Your task to perform on an android device: toggle notifications settings in the gmail app Image 0: 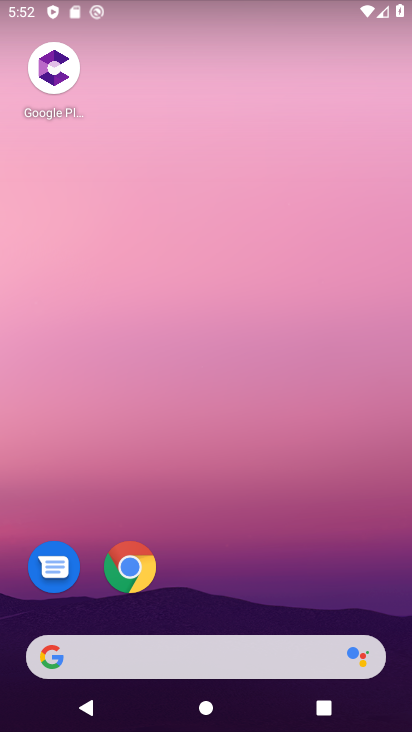
Step 0: drag from (286, 600) to (329, 145)
Your task to perform on an android device: toggle notifications settings in the gmail app Image 1: 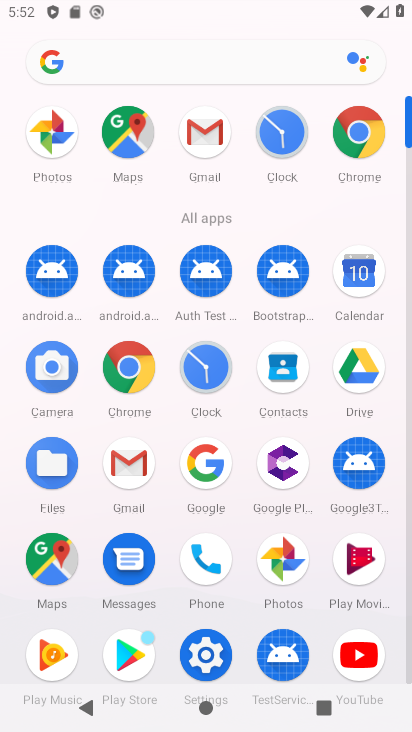
Step 1: drag from (313, 156) to (327, 48)
Your task to perform on an android device: toggle notifications settings in the gmail app Image 2: 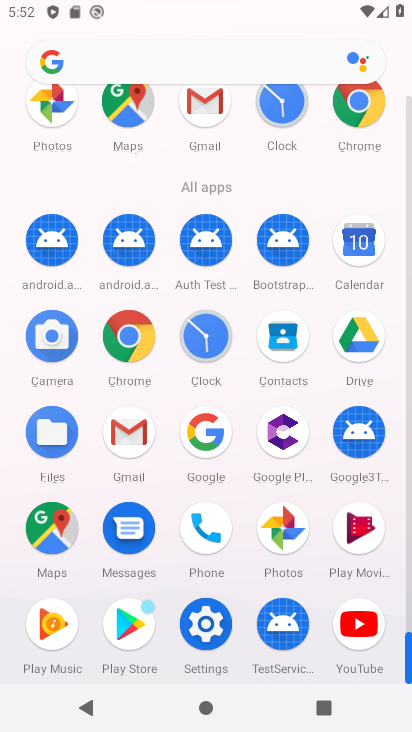
Step 2: click (201, 619)
Your task to perform on an android device: toggle notifications settings in the gmail app Image 3: 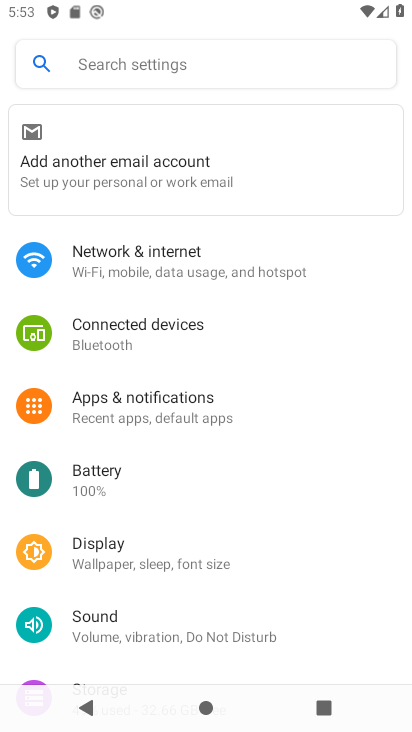
Step 3: press home button
Your task to perform on an android device: toggle notifications settings in the gmail app Image 4: 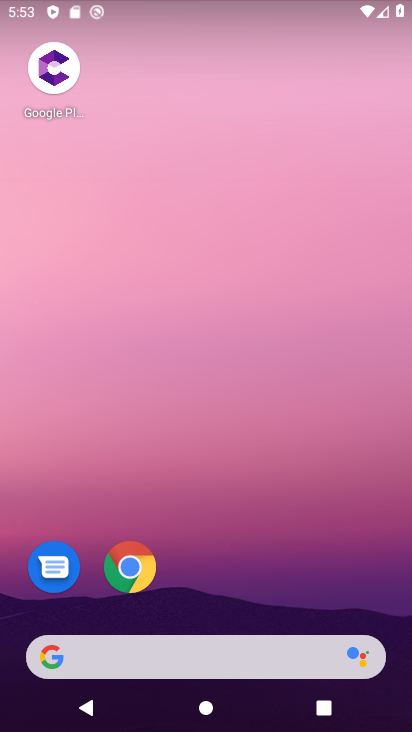
Step 4: drag from (272, 573) to (348, 101)
Your task to perform on an android device: toggle notifications settings in the gmail app Image 5: 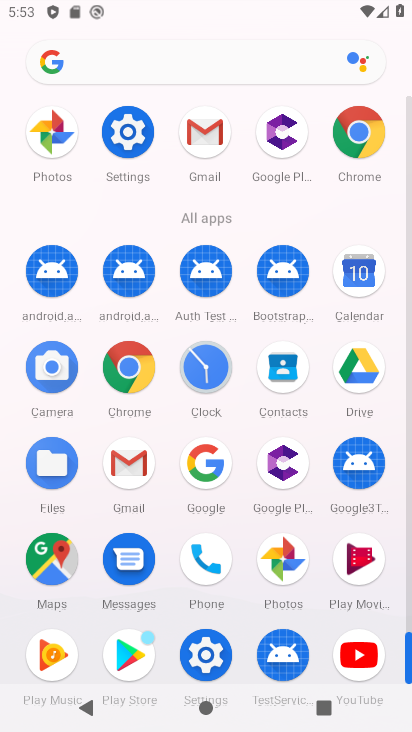
Step 5: click (211, 137)
Your task to perform on an android device: toggle notifications settings in the gmail app Image 6: 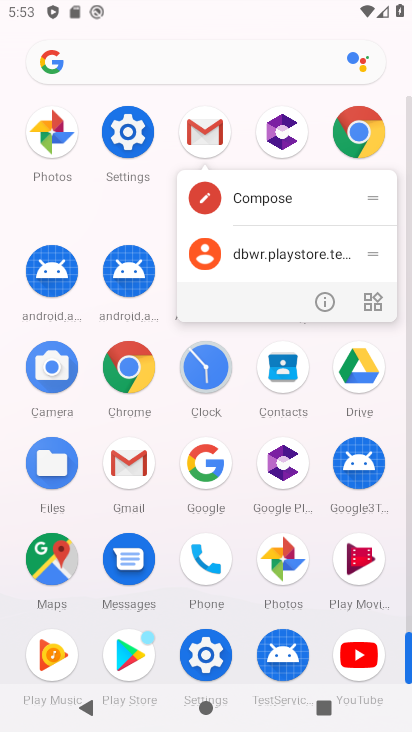
Step 6: click (323, 304)
Your task to perform on an android device: toggle notifications settings in the gmail app Image 7: 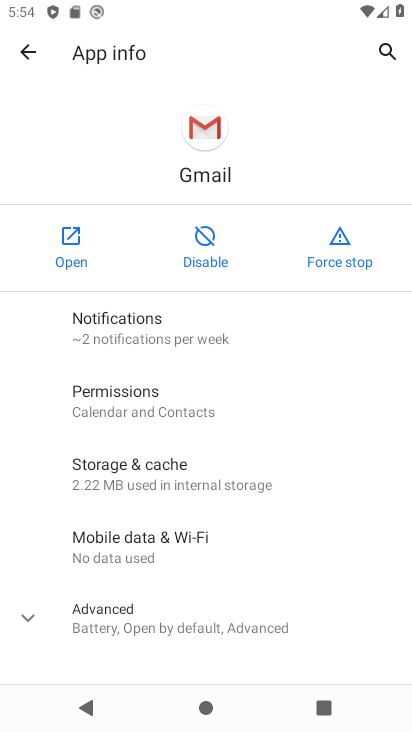
Step 7: click (198, 340)
Your task to perform on an android device: toggle notifications settings in the gmail app Image 8: 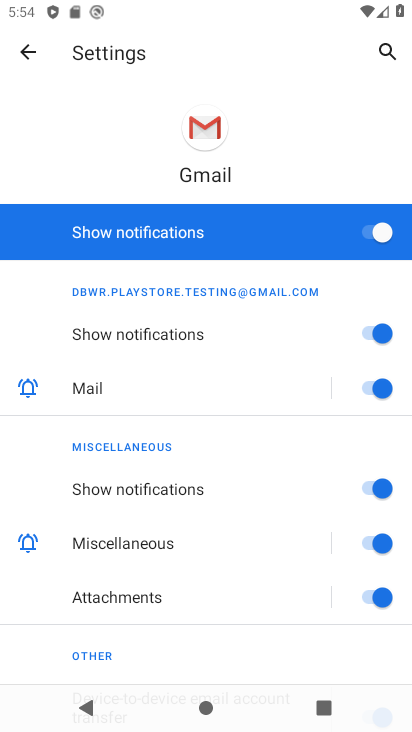
Step 8: click (368, 222)
Your task to perform on an android device: toggle notifications settings in the gmail app Image 9: 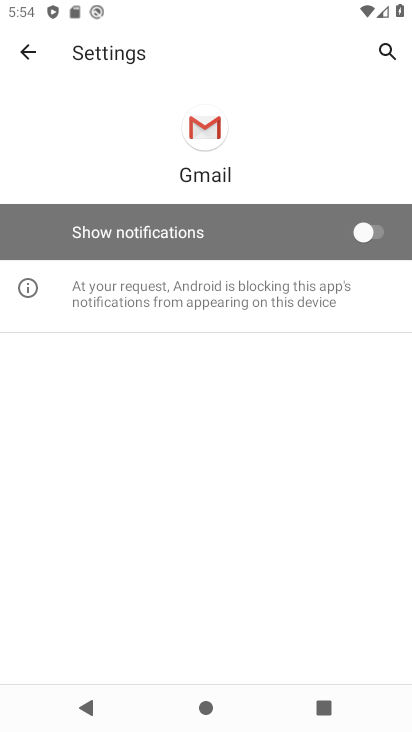
Step 9: task complete